Your task to perform on an android device: star an email in the gmail app Image 0: 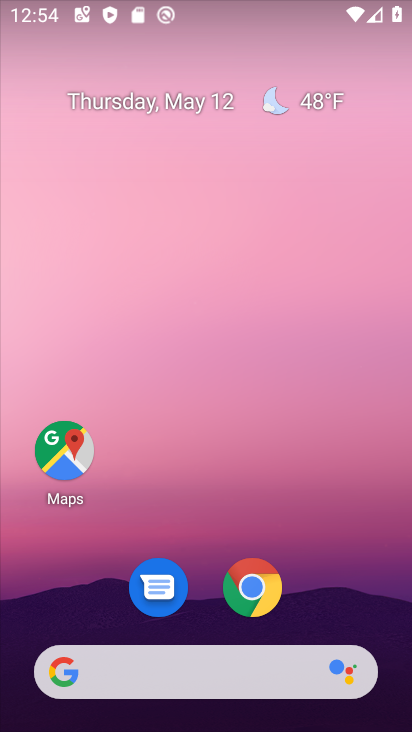
Step 0: drag from (208, 646) to (257, 158)
Your task to perform on an android device: star an email in the gmail app Image 1: 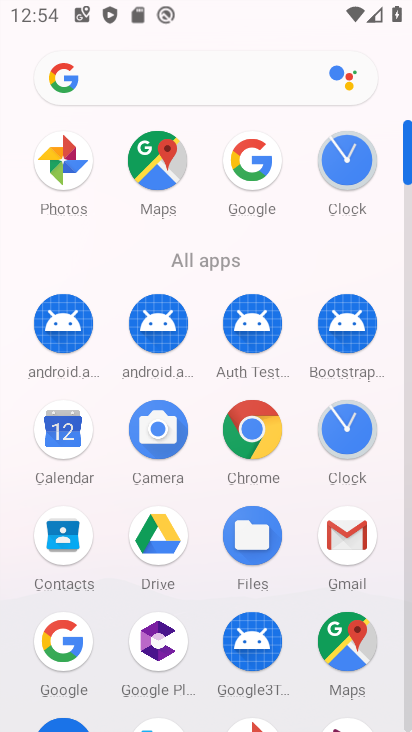
Step 1: click (365, 551)
Your task to perform on an android device: star an email in the gmail app Image 2: 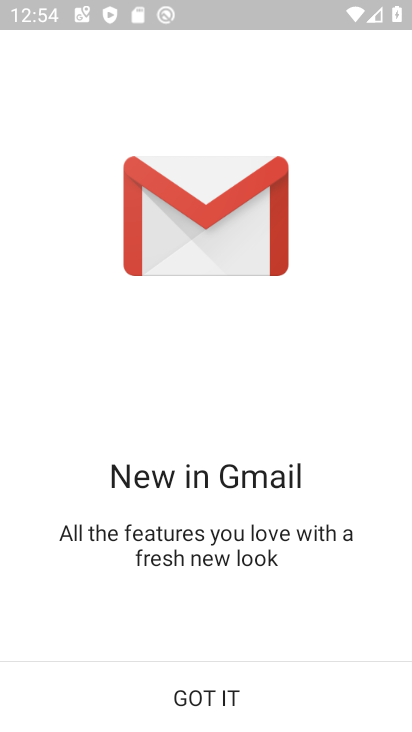
Step 2: click (254, 698)
Your task to perform on an android device: star an email in the gmail app Image 3: 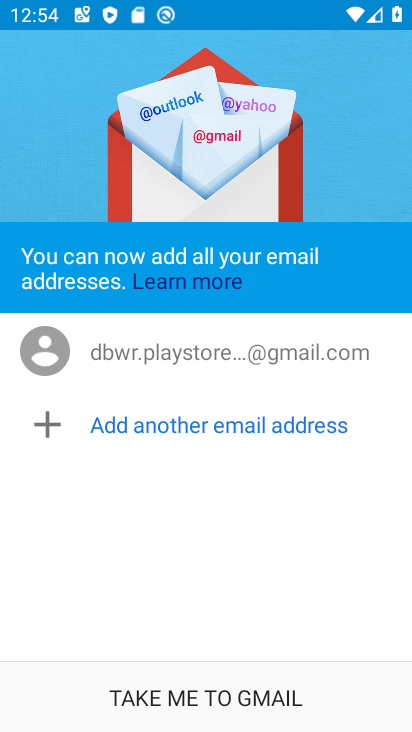
Step 3: click (254, 698)
Your task to perform on an android device: star an email in the gmail app Image 4: 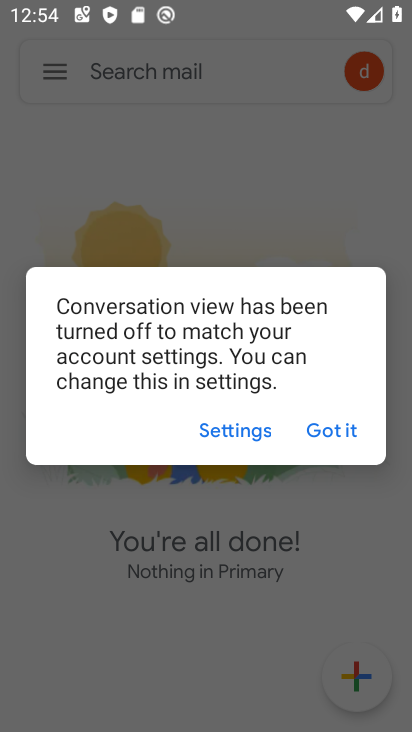
Step 4: click (337, 417)
Your task to perform on an android device: star an email in the gmail app Image 5: 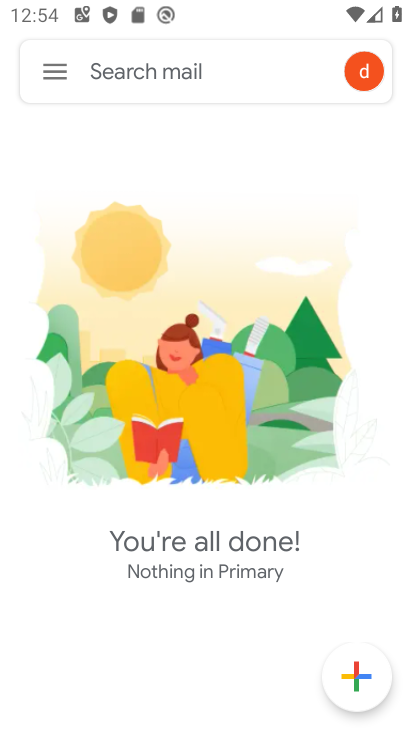
Step 5: click (53, 79)
Your task to perform on an android device: star an email in the gmail app Image 6: 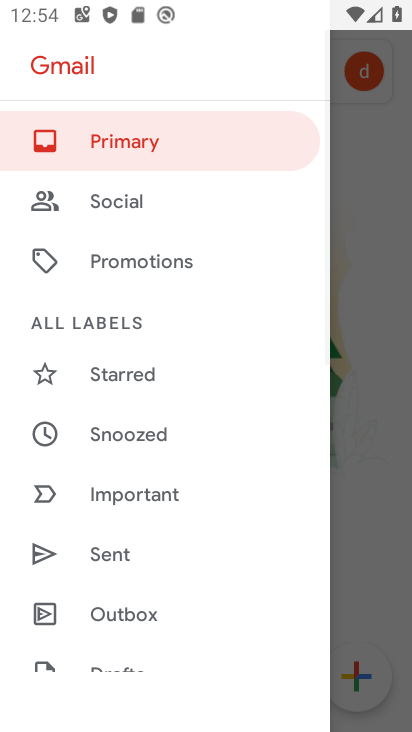
Step 6: drag from (114, 529) to (177, 176)
Your task to perform on an android device: star an email in the gmail app Image 7: 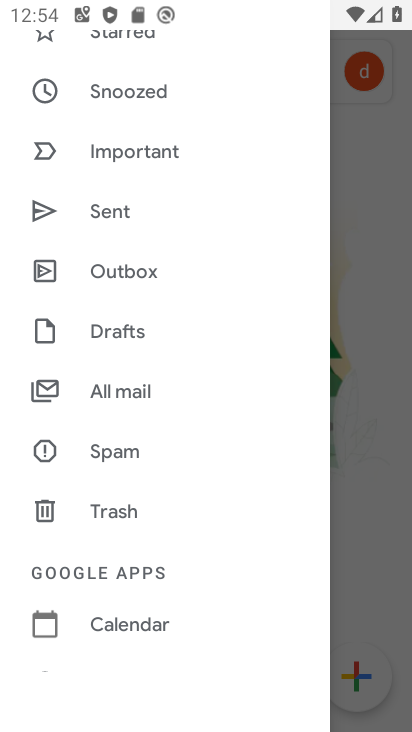
Step 7: click (129, 401)
Your task to perform on an android device: star an email in the gmail app Image 8: 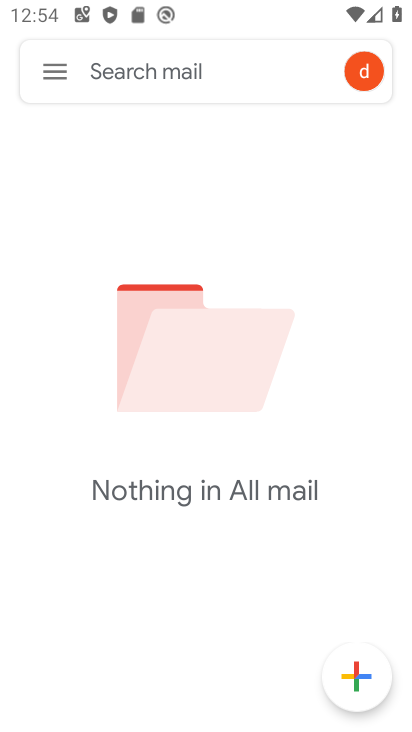
Step 8: task complete